Your task to perform on an android device: Open Google Chrome and click the shortcut for Amazon.com Image 0: 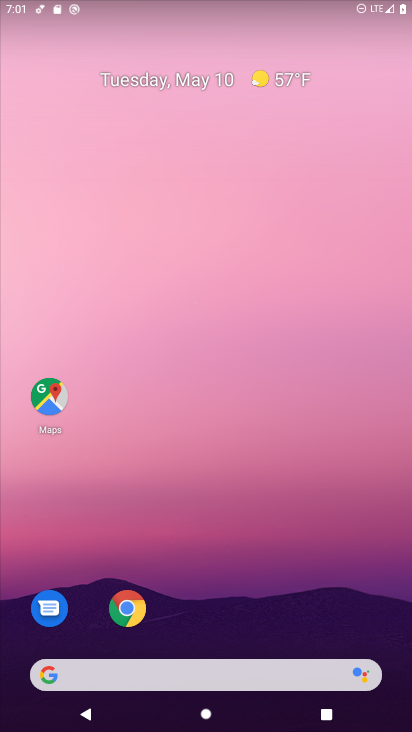
Step 0: drag from (339, 616) to (190, 16)
Your task to perform on an android device: Open Google Chrome and click the shortcut for Amazon.com Image 1: 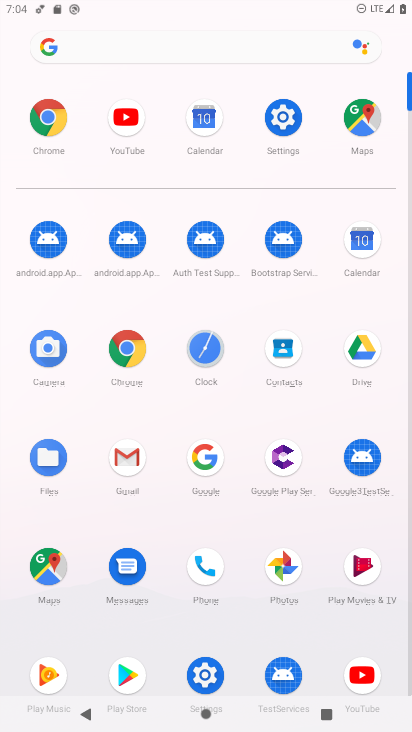
Step 1: click (97, 352)
Your task to perform on an android device: Open Google Chrome and click the shortcut for Amazon.com Image 2: 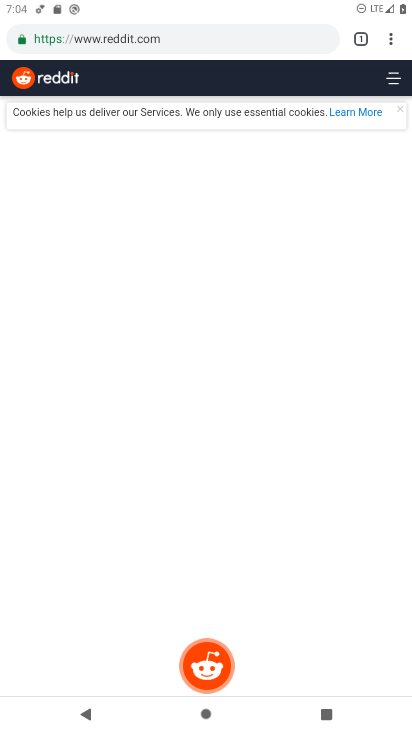
Step 2: press back button
Your task to perform on an android device: Open Google Chrome and click the shortcut for Amazon.com Image 3: 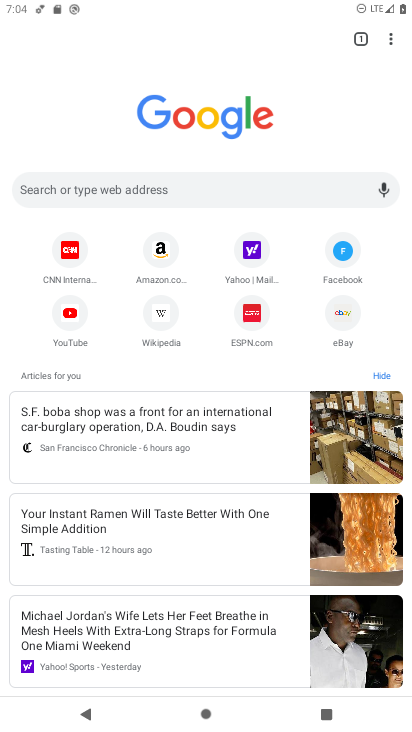
Step 3: click (143, 260)
Your task to perform on an android device: Open Google Chrome and click the shortcut for Amazon.com Image 4: 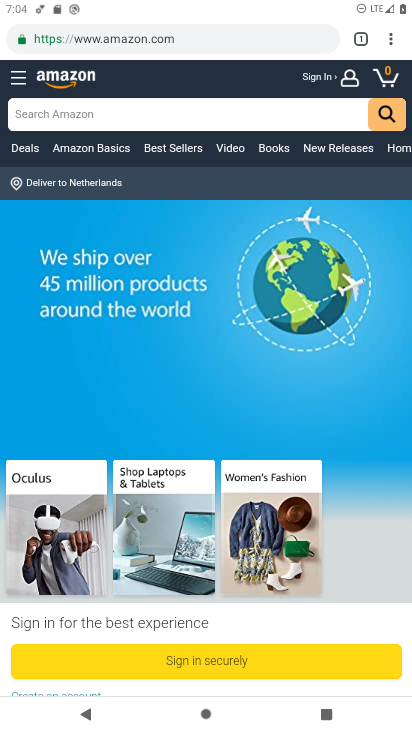
Step 4: task complete